Your task to perform on an android device: remove spam from my inbox in the gmail app Image 0: 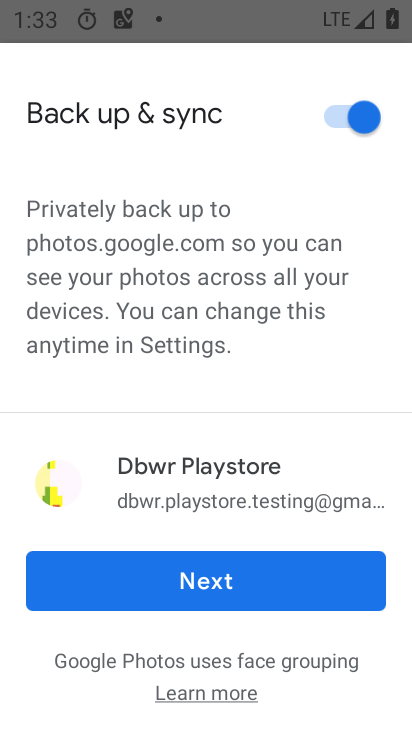
Step 0: press home button
Your task to perform on an android device: remove spam from my inbox in the gmail app Image 1: 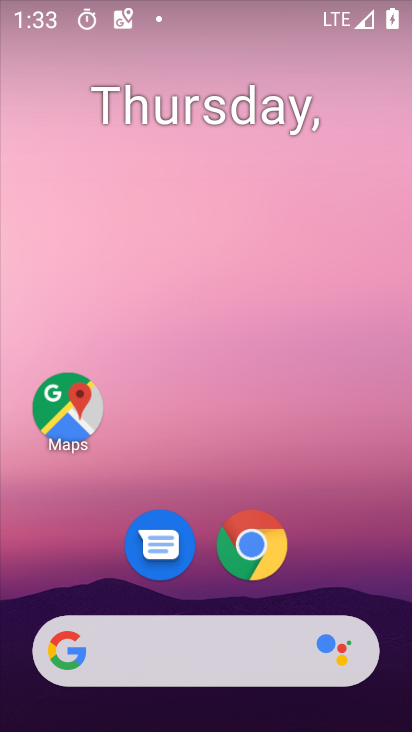
Step 1: drag from (317, 630) to (376, 7)
Your task to perform on an android device: remove spam from my inbox in the gmail app Image 2: 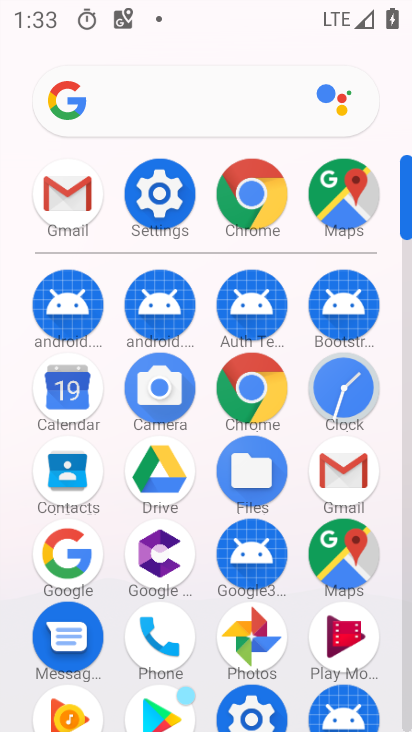
Step 2: click (333, 465)
Your task to perform on an android device: remove spam from my inbox in the gmail app Image 3: 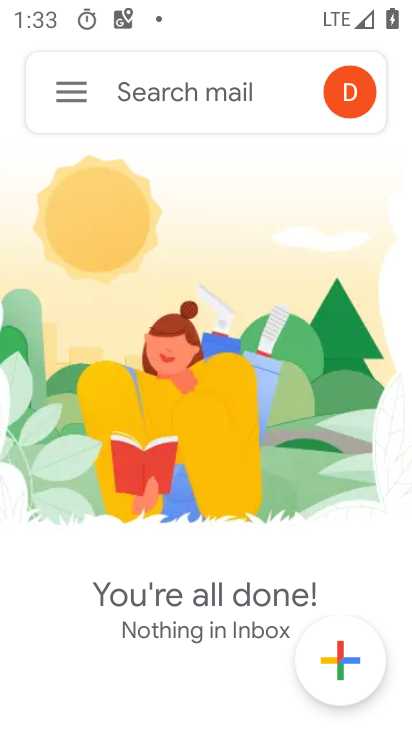
Step 3: click (47, 62)
Your task to perform on an android device: remove spam from my inbox in the gmail app Image 4: 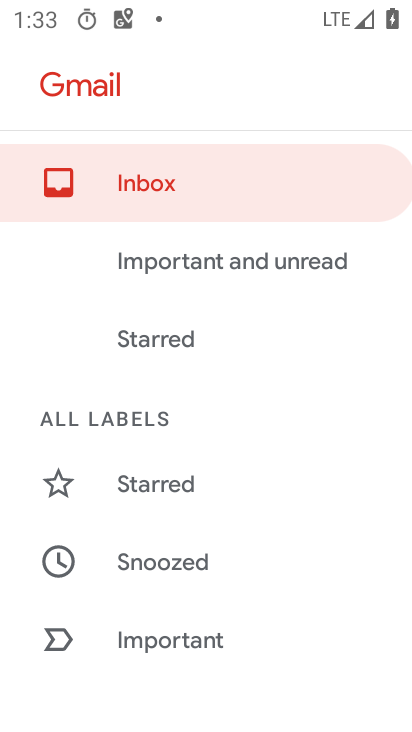
Step 4: drag from (197, 599) to (205, 221)
Your task to perform on an android device: remove spam from my inbox in the gmail app Image 5: 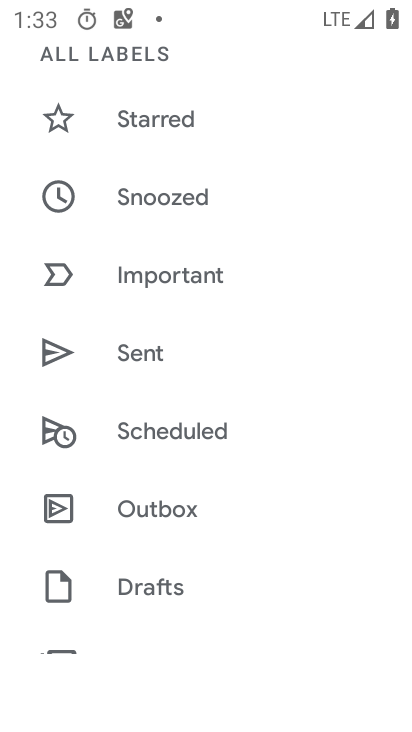
Step 5: drag from (171, 605) to (163, 367)
Your task to perform on an android device: remove spam from my inbox in the gmail app Image 6: 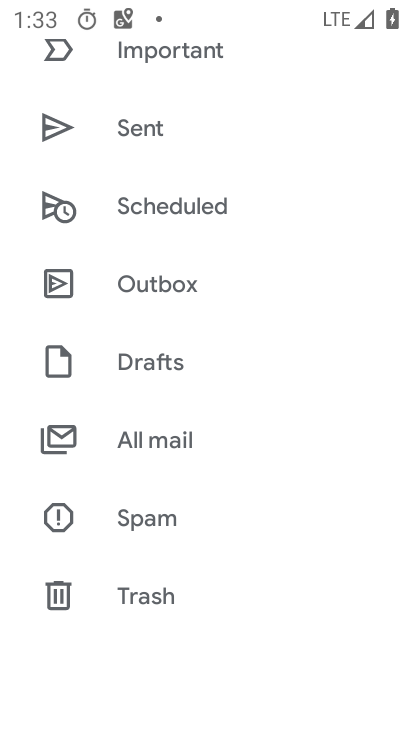
Step 6: click (154, 503)
Your task to perform on an android device: remove spam from my inbox in the gmail app Image 7: 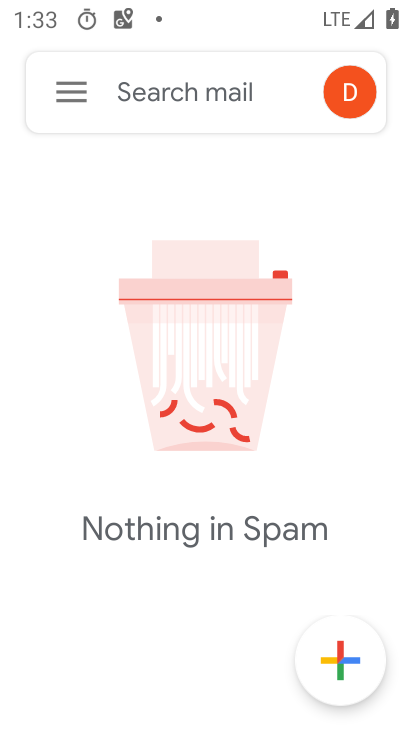
Step 7: task complete